Your task to perform on an android device: open the mobile data screen to see how much data has been used Image 0: 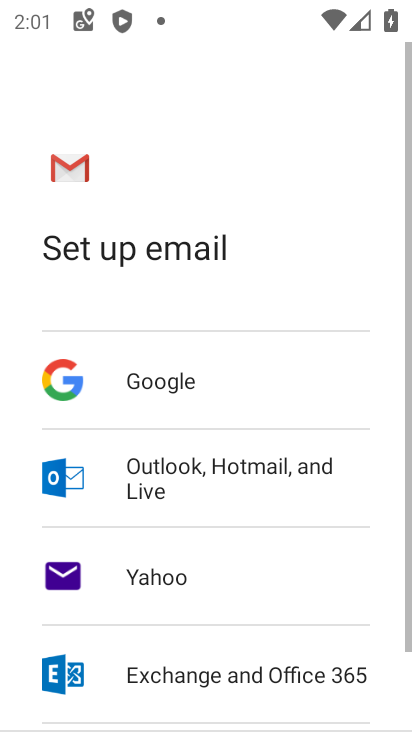
Step 0: press home button
Your task to perform on an android device: open the mobile data screen to see how much data has been used Image 1: 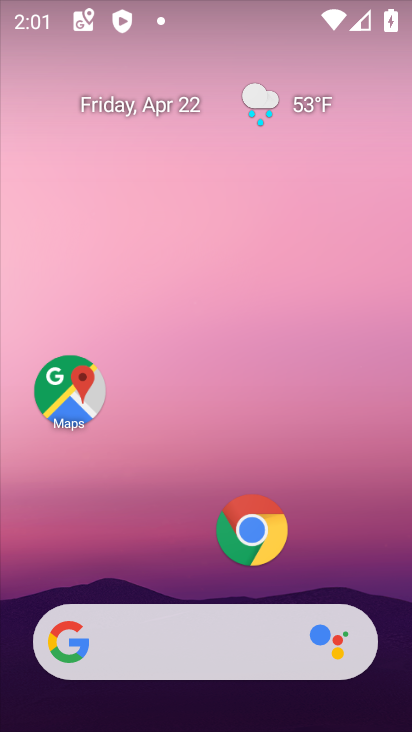
Step 1: drag from (249, 627) to (187, 118)
Your task to perform on an android device: open the mobile data screen to see how much data has been used Image 2: 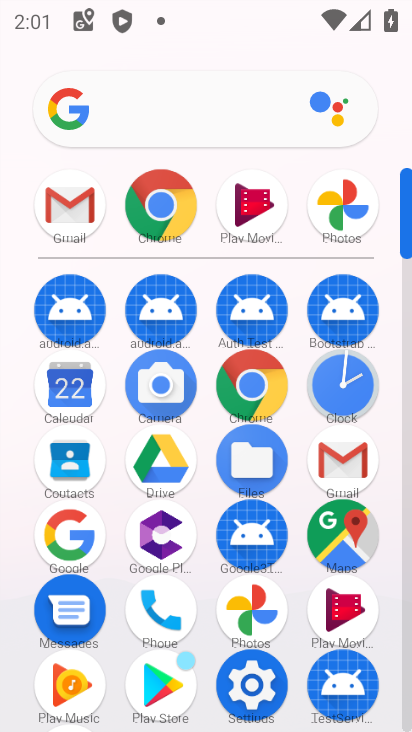
Step 2: click (269, 674)
Your task to perform on an android device: open the mobile data screen to see how much data has been used Image 3: 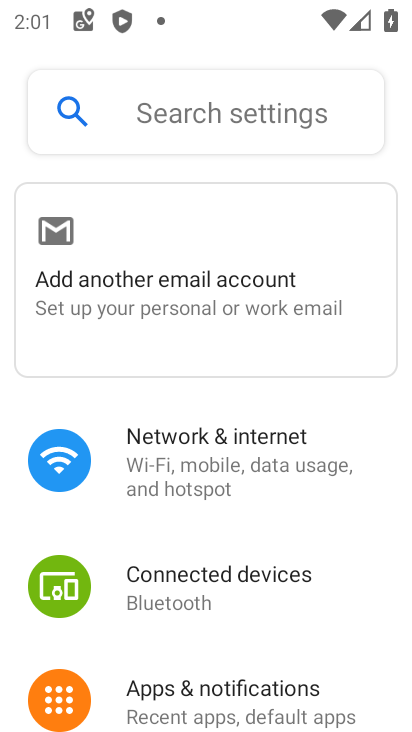
Step 3: drag from (253, 617) to (232, 382)
Your task to perform on an android device: open the mobile data screen to see how much data has been used Image 4: 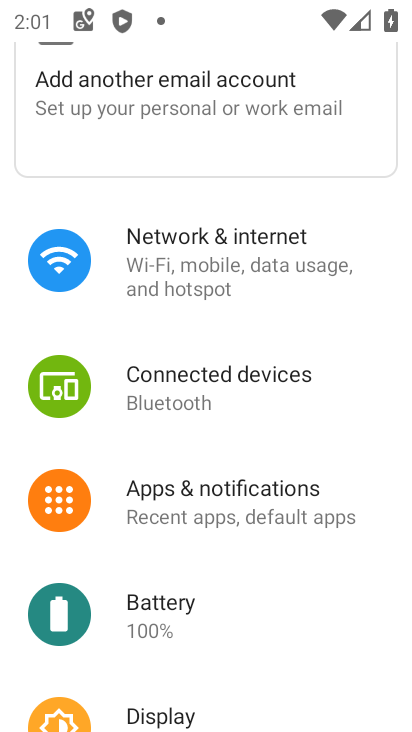
Step 4: click (183, 239)
Your task to perform on an android device: open the mobile data screen to see how much data has been used Image 5: 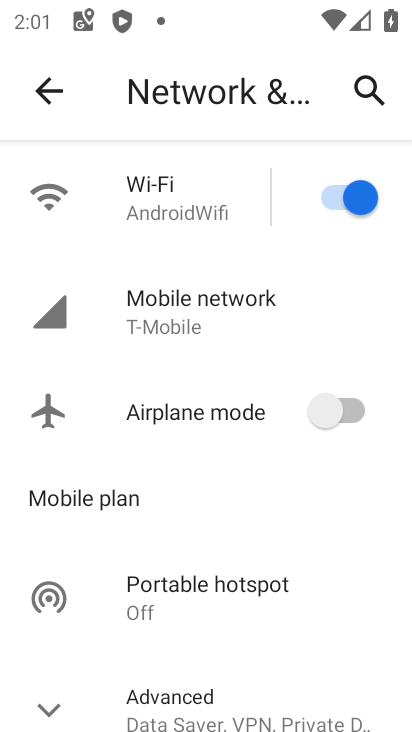
Step 5: click (236, 316)
Your task to perform on an android device: open the mobile data screen to see how much data has been used Image 6: 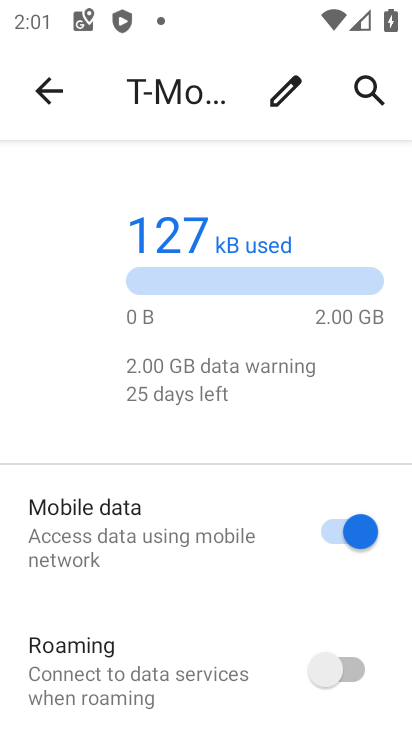
Step 6: task complete